Your task to perform on an android device: open chrome and create a bookmark for the current page Image 0: 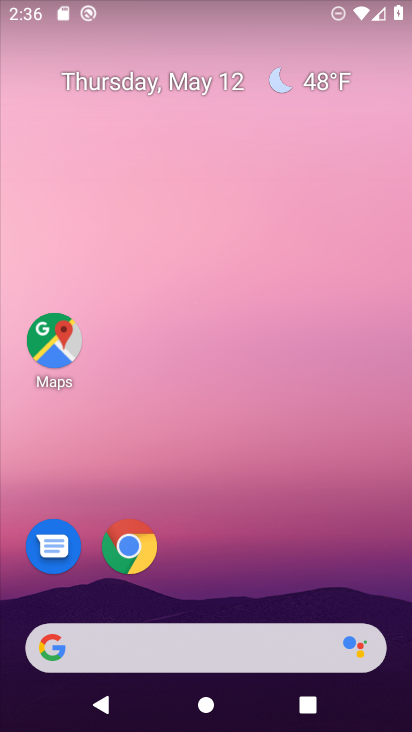
Step 0: drag from (250, 613) to (155, 249)
Your task to perform on an android device: open chrome and create a bookmark for the current page Image 1: 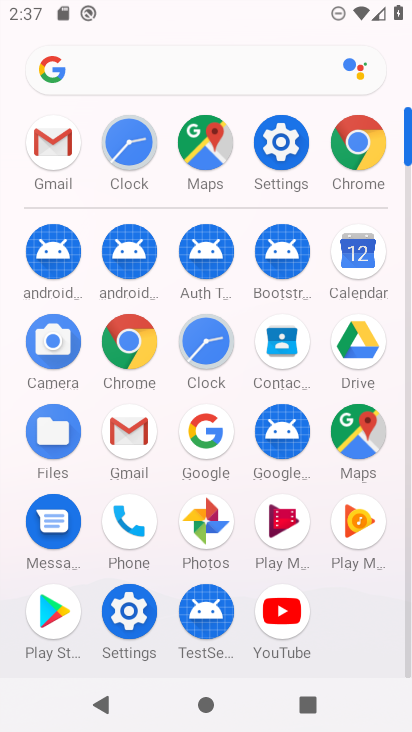
Step 1: click (353, 154)
Your task to perform on an android device: open chrome and create a bookmark for the current page Image 2: 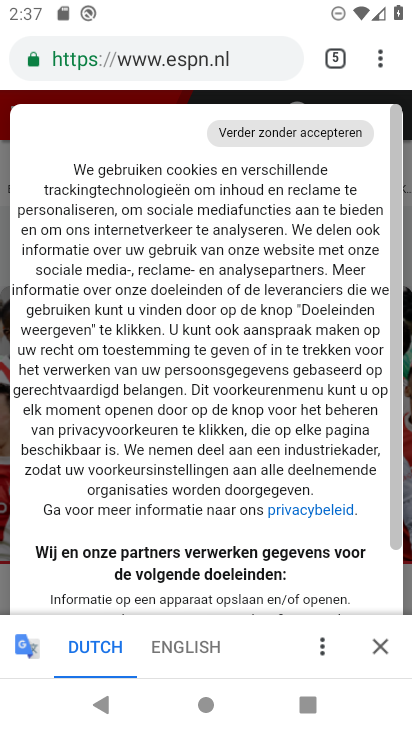
Step 2: click (379, 75)
Your task to perform on an android device: open chrome and create a bookmark for the current page Image 3: 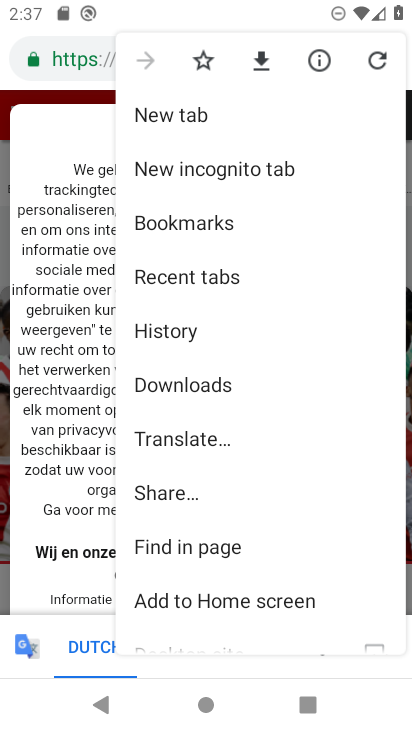
Step 3: click (200, 237)
Your task to perform on an android device: open chrome and create a bookmark for the current page Image 4: 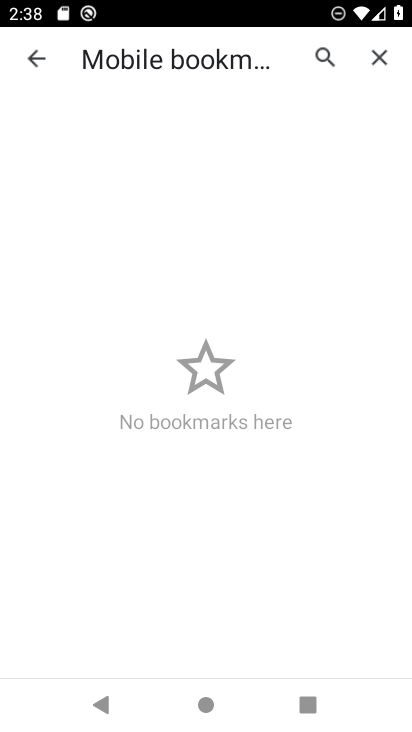
Step 4: task complete